Your task to perform on an android device: Go to notification settings Image 0: 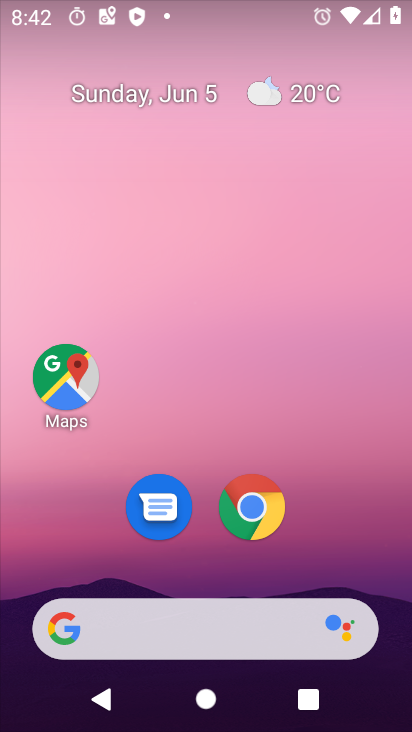
Step 0: drag from (360, 561) to (234, 39)
Your task to perform on an android device: Go to notification settings Image 1: 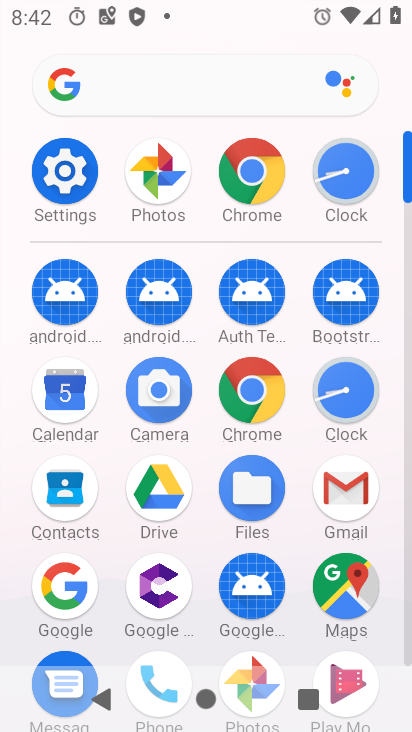
Step 1: click (62, 168)
Your task to perform on an android device: Go to notification settings Image 2: 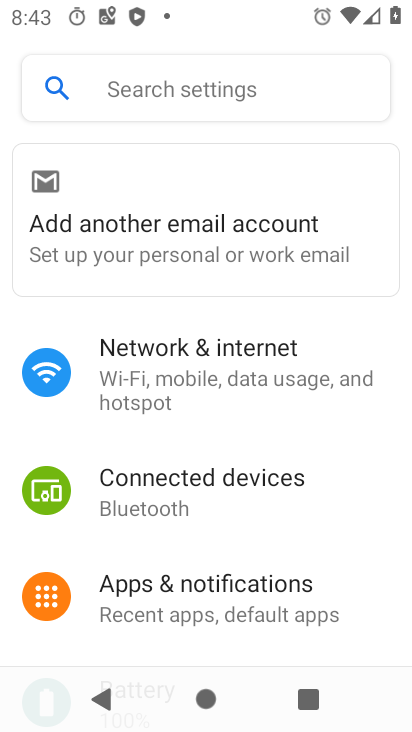
Step 2: click (190, 589)
Your task to perform on an android device: Go to notification settings Image 3: 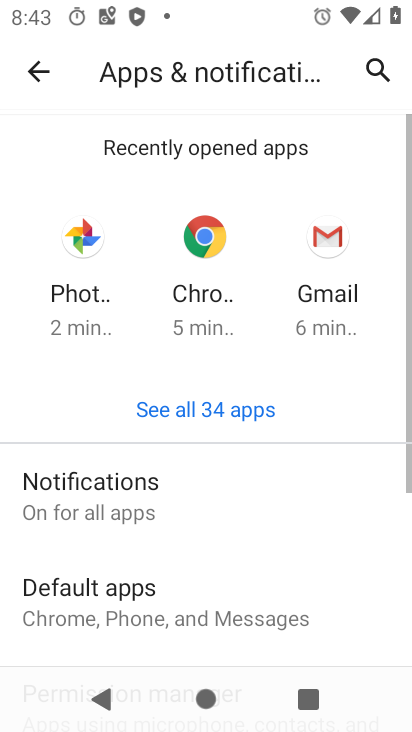
Step 3: drag from (253, 607) to (258, 188)
Your task to perform on an android device: Go to notification settings Image 4: 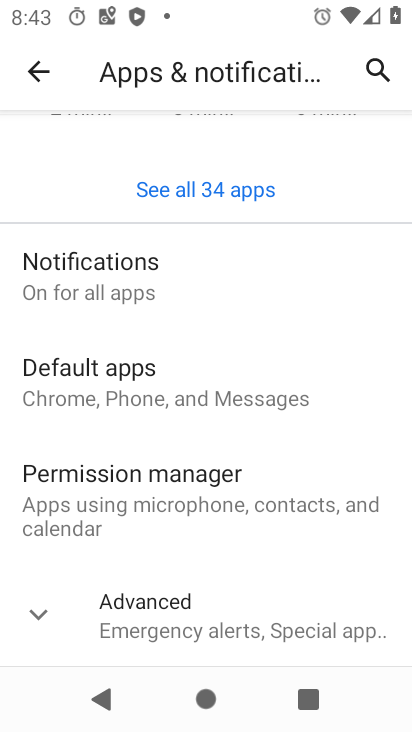
Step 4: click (43, 606)
Your task to perform on an android device: Go to notification settings Image 5: 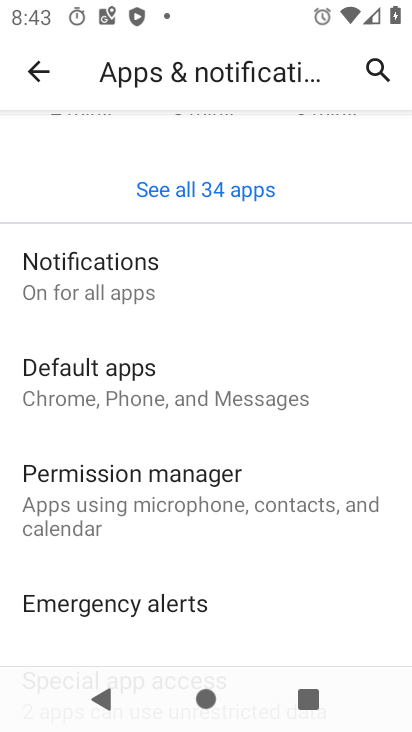
Step 5: task complete